Your task to perform on an android device: open a new tab in the chrome app Image 0: 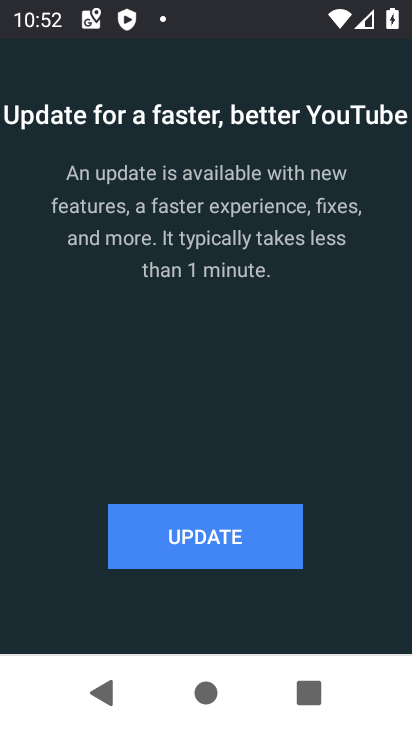
Step 0: press home button
Your task to perform on an android device: open a new tab in the chrome app Image 1: 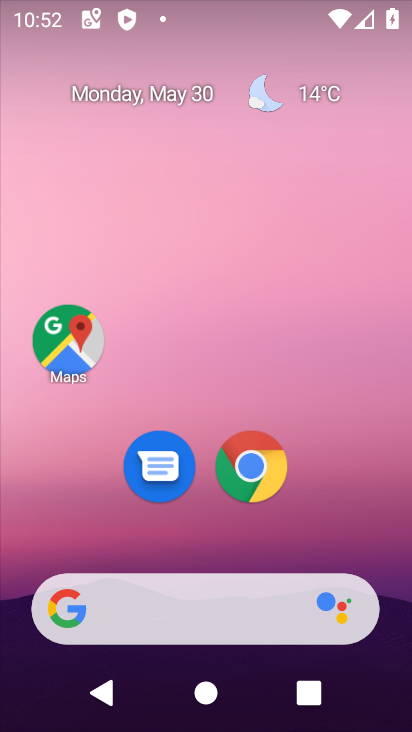
Step 1: click (275, 471)
Your task to perform on an android device: open a new tab in the chrome app Image 2: 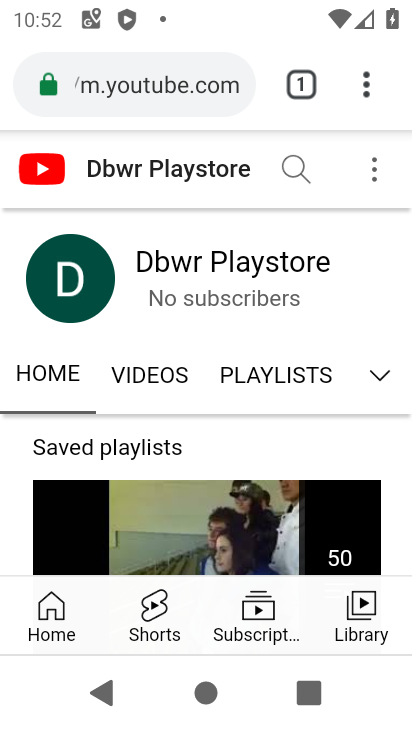
Step 2: click (365, 80)
Your task to perform on an android device: open a new tab in the chrome app Image 3: 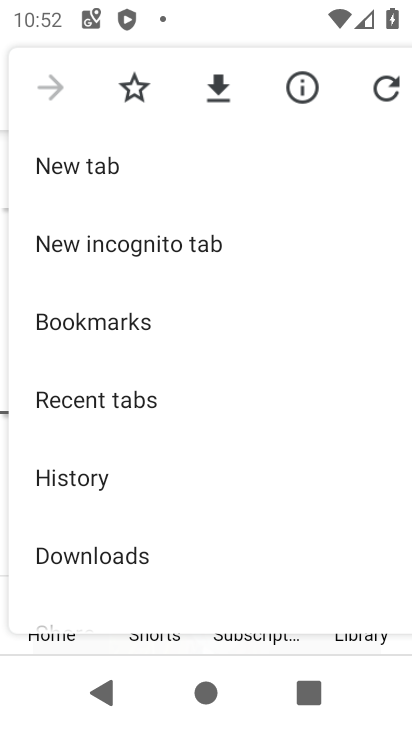
Step 3: click (115, 165)
Your task to perform on an android device: open a new tab in the chrome app Image 4: 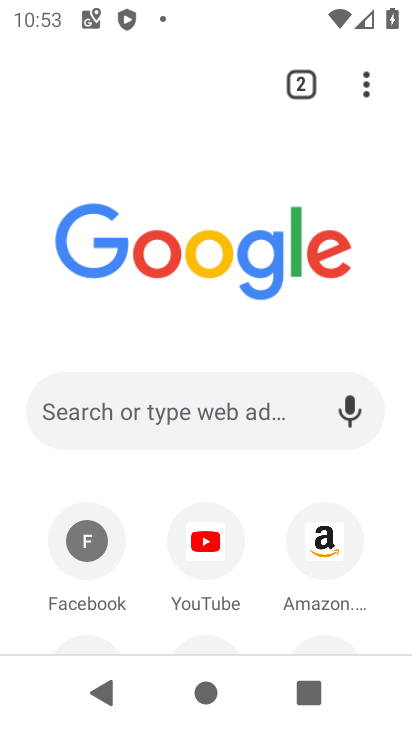
Step 4: task complete